Your task to perform on an android device: turn off sleep mode Image 0: 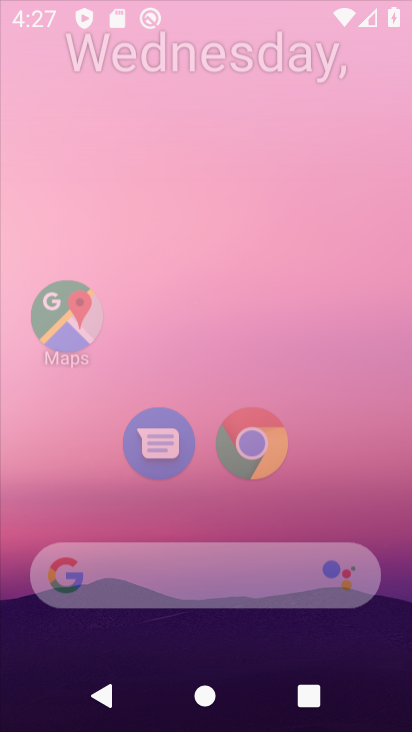
Step 0: press home button
Your task to perform on an android device: turn off sleep mode Image 1: 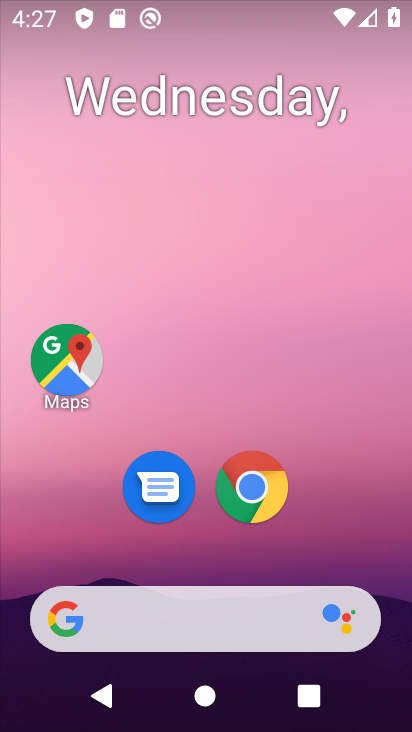
Step 1: drag from (207, 552) to (228, 96)
Your task to perform on an android device: turn off sleep mode Image 2: 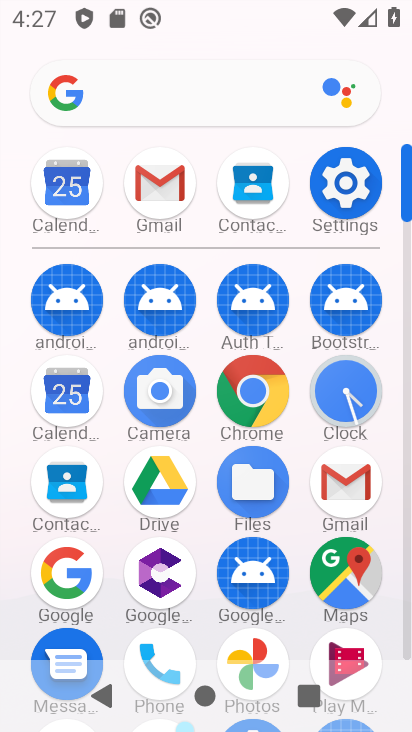
Step 2: click (352, 178)
Your task to perform on an android device: turn off sleep mode Image 3: 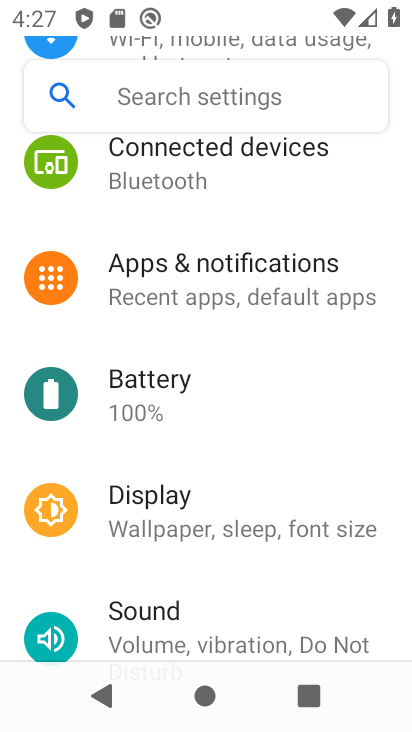
Step 3: click (187, 516)
Your task to perform on an android device: turn off sleep mode Image 4: 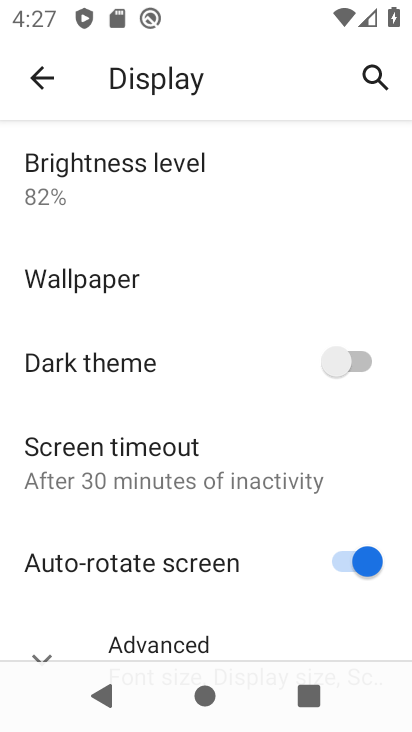
Step 4: drag from (159, 609) to (164, 245)
Your task to perform on an android device: turn off sleep mode Image 5: 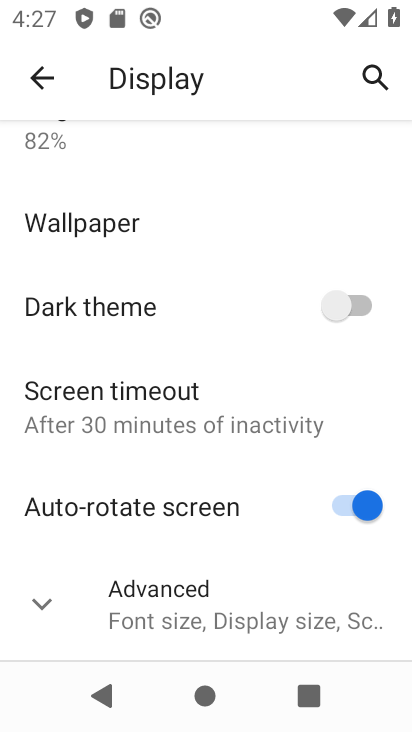
Step 5: click (30, 601)
Your task to perform on an android device: turn off sleep mode Image 6: 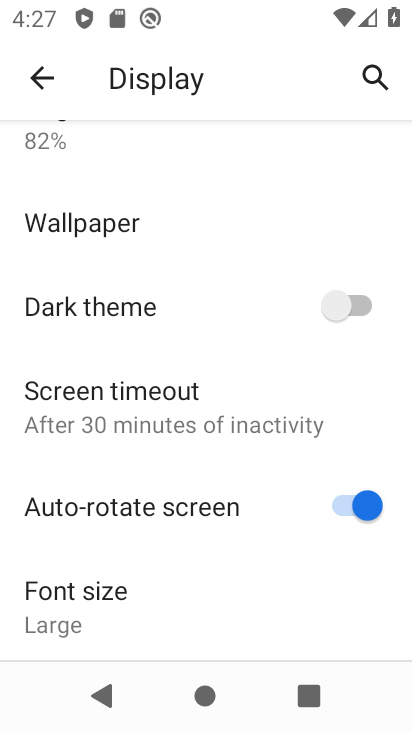
Step 6: task complete